Your task to perform on an android device: Open the stopwatch Image 0: 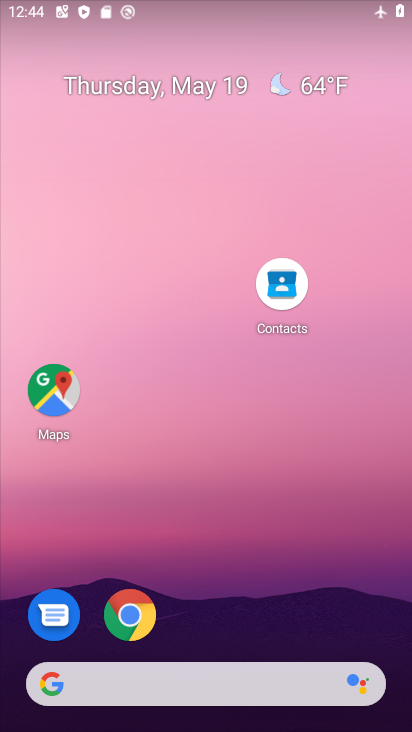
Step 0: drag from (299, 636) to (365, 150)
Your task to perform on an android device: Open the stopwatch Image 1: 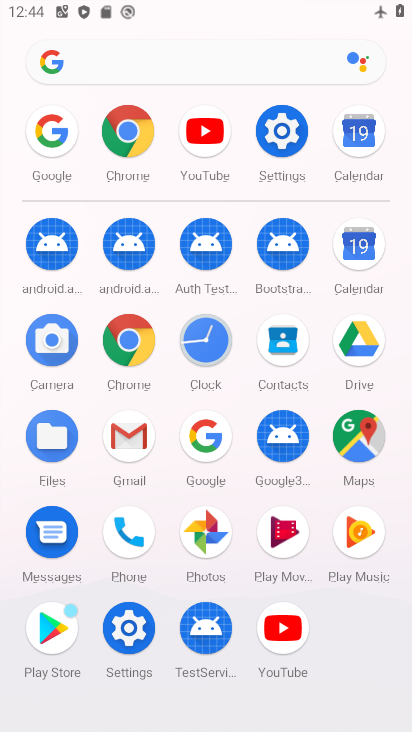
Step 1: drag from (150, 512) to (143, 359)
Your task to perform on an android device: Open the stopwatch Image 2: 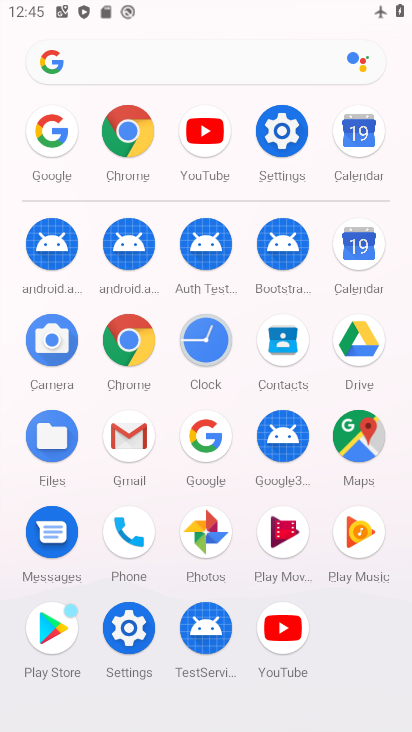
Step 2: click (209, 343)
Your task to perform on an android device: Open the stopwatch Image 3: 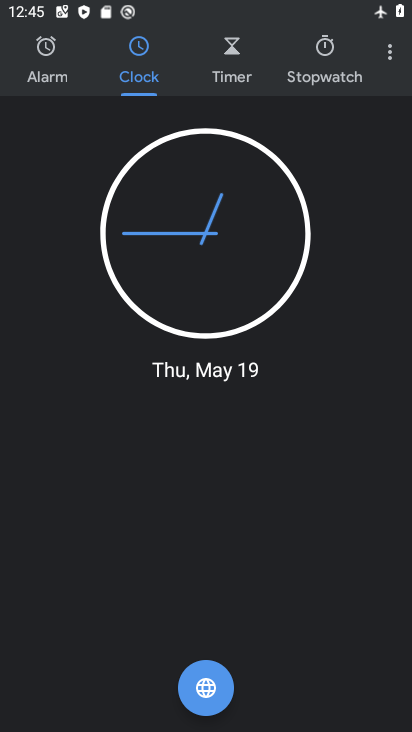
Step 3: click (335, 58)
Your task to perform on an android device: Open the stopwatch Image 4: 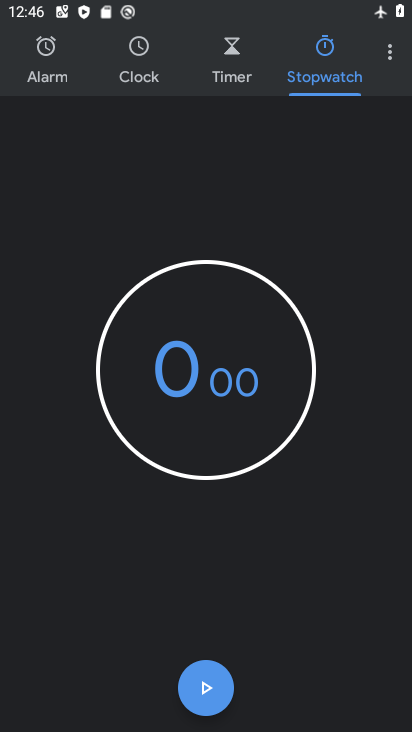
Step 4: task complete